Your task to perform on an android device: Turn on the flashlight Image 0: 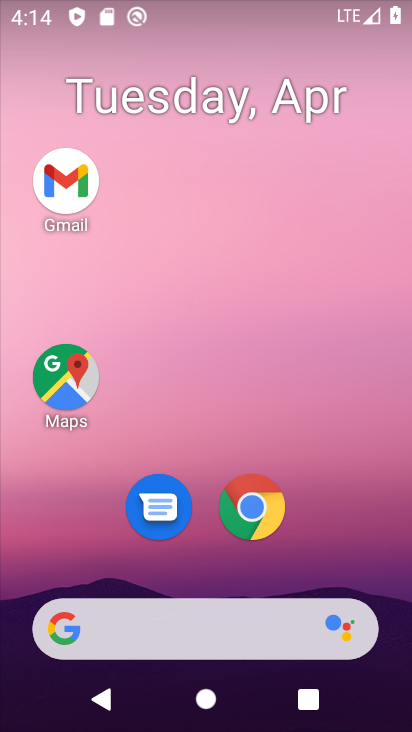
Step 0: drag from (221, 82) to (178, 434)
Your task to perform on an android device: Turn on the flashlight Image 1: 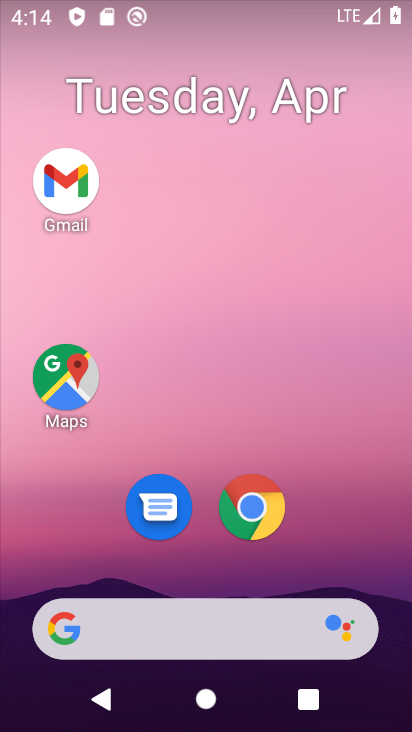
Step 1: task complete